Your task to perform on an android device: Show me popular games on the Play Store Image 0: 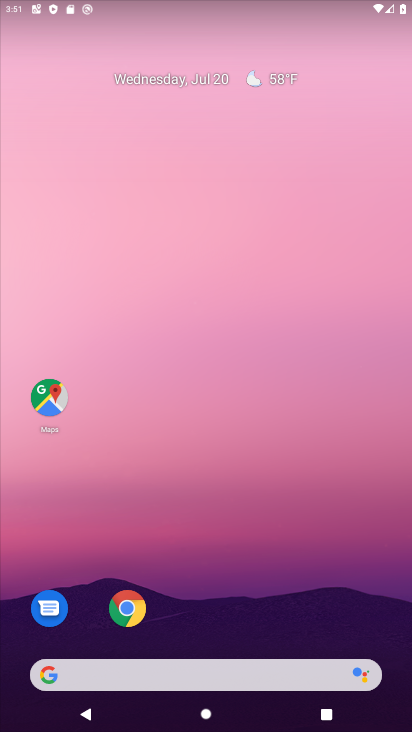
Step 0: drag from (267, 621) to (224, 106)
Your task to perform on an android device: Show me popular games on the Play Store Image 1: 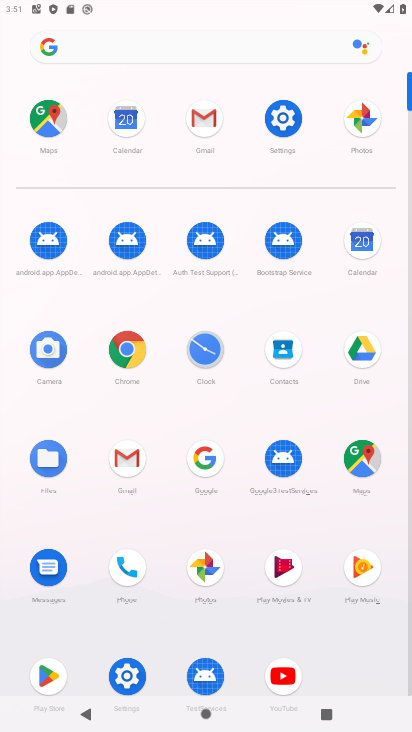
Step 1: click (39, 688)
Your task to perform on an android device: Show me popular games on the Play Store Image 2: 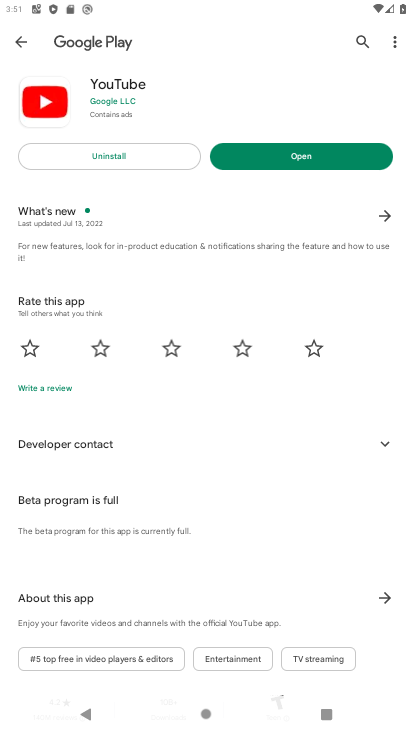
Step 2: click (11, 34)
Your task to perform on an android device: Show me popular games on the Play Store Image 3: 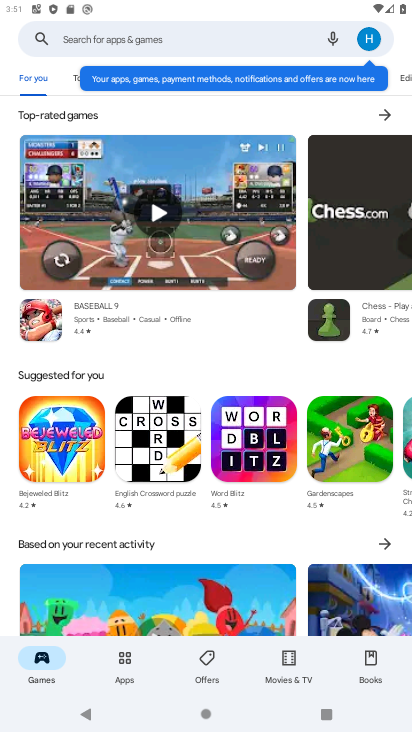
Step 3: click (68, 87)
Your task to perform on an android device: Show me popular games on the Play Store Image 4: 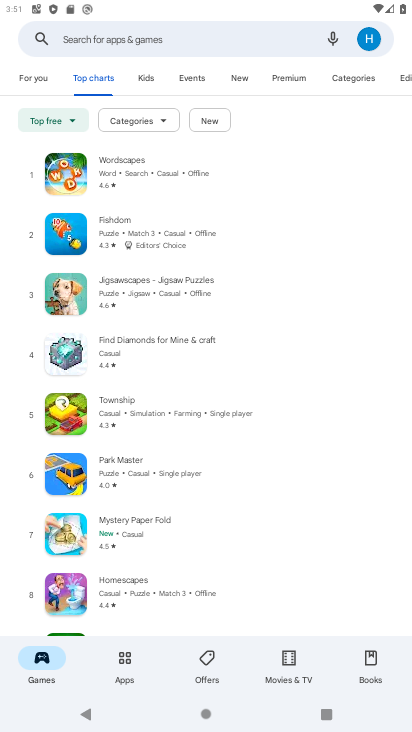
Step 4: task complete